Your task to perform on an android device: turn off airplane mode Image 0: 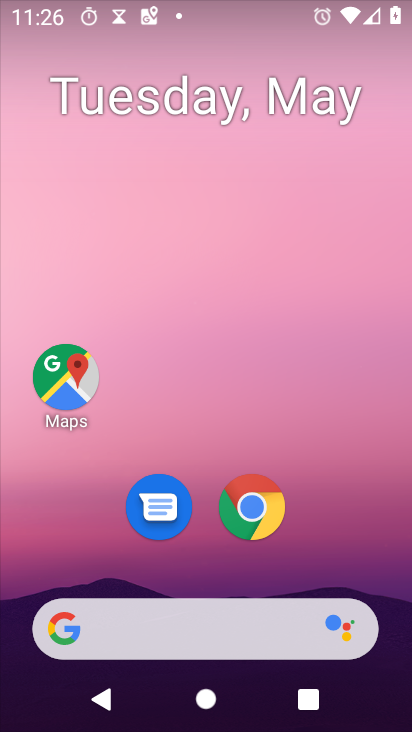
Step 0: drag from (401, 1) to (268, 477)
Your task to perform on an android device: turn off airplane mode Image 1: 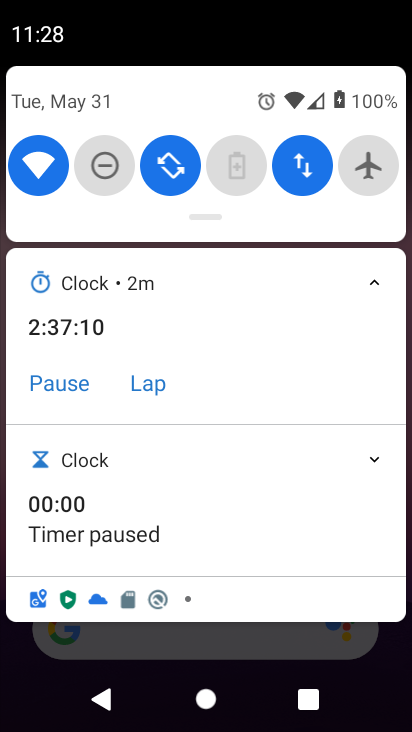
Step 1: task complete